Your task to perform on an android device: Go to battery settings Image 0: 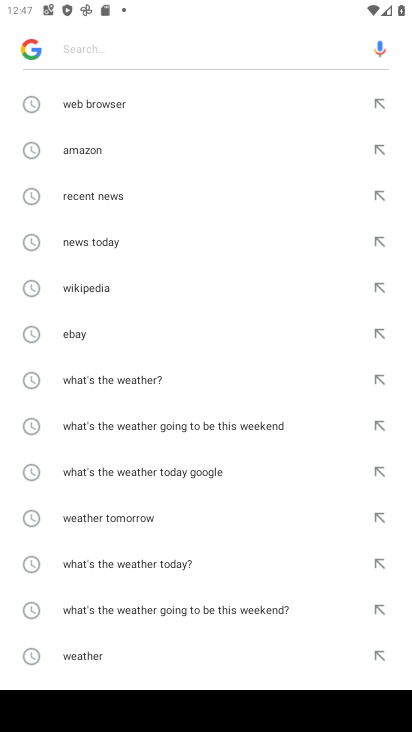
Step 0: press home button
Your task to perform on an android device: Go to battery settings Image 1: 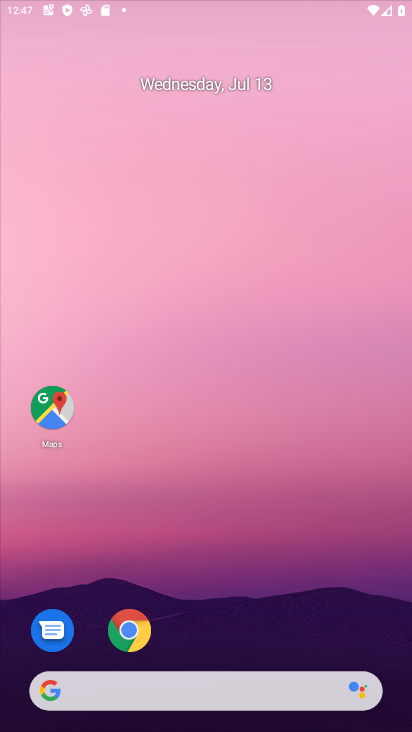
Step 1: drag from (389, 670) to (220, 107)
Your task to perform on an android device: Go to battery settings Image 2: 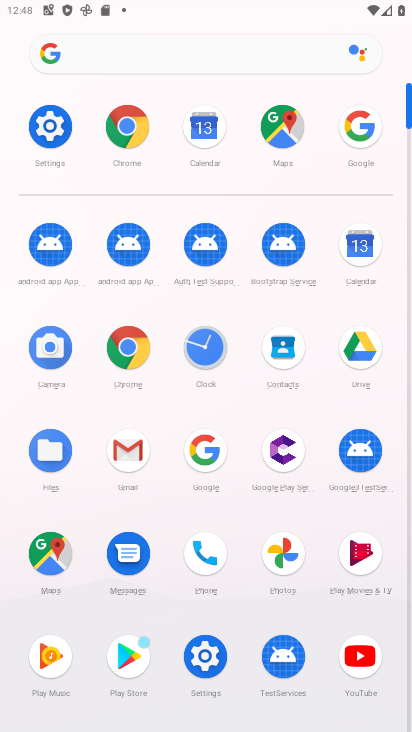
Step 2: click (203, 663)
Your task to perform on an android device: Go to battery settings Image 3: 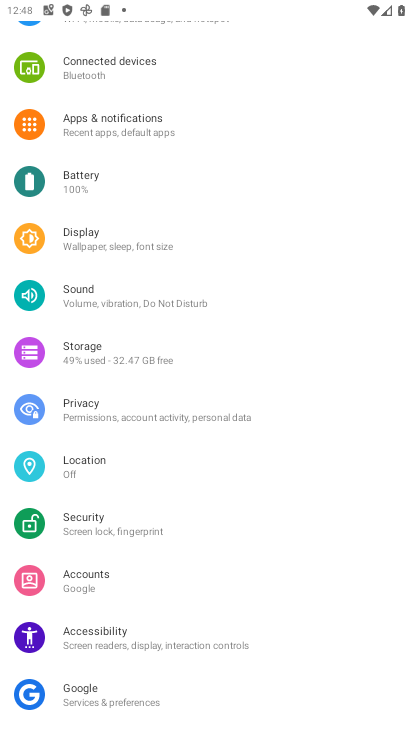
Step 3: click (115, 182)
Your task to perform on an android device: Go to battery settings Image 4: 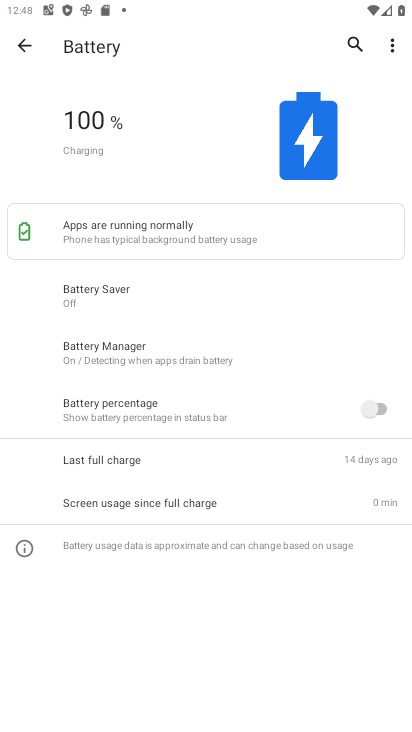
Step 4: task complete